Your task to perform on an android device: open app "DoorDash - Dasher" (install if not already installed) Image 0: 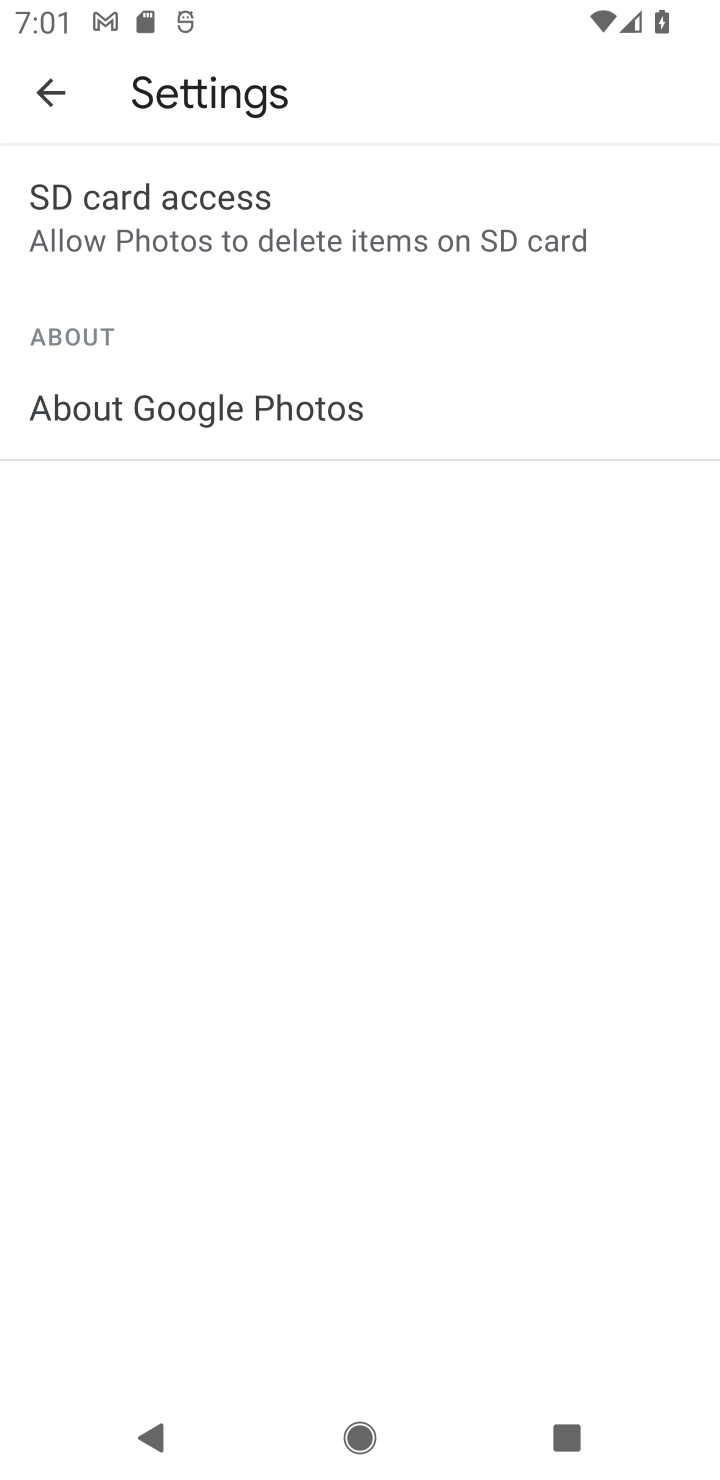
Step 0: press home button
Your task to perform on an android device: open app "DoorDash - Dasher" (install if not already installed) Image 1: 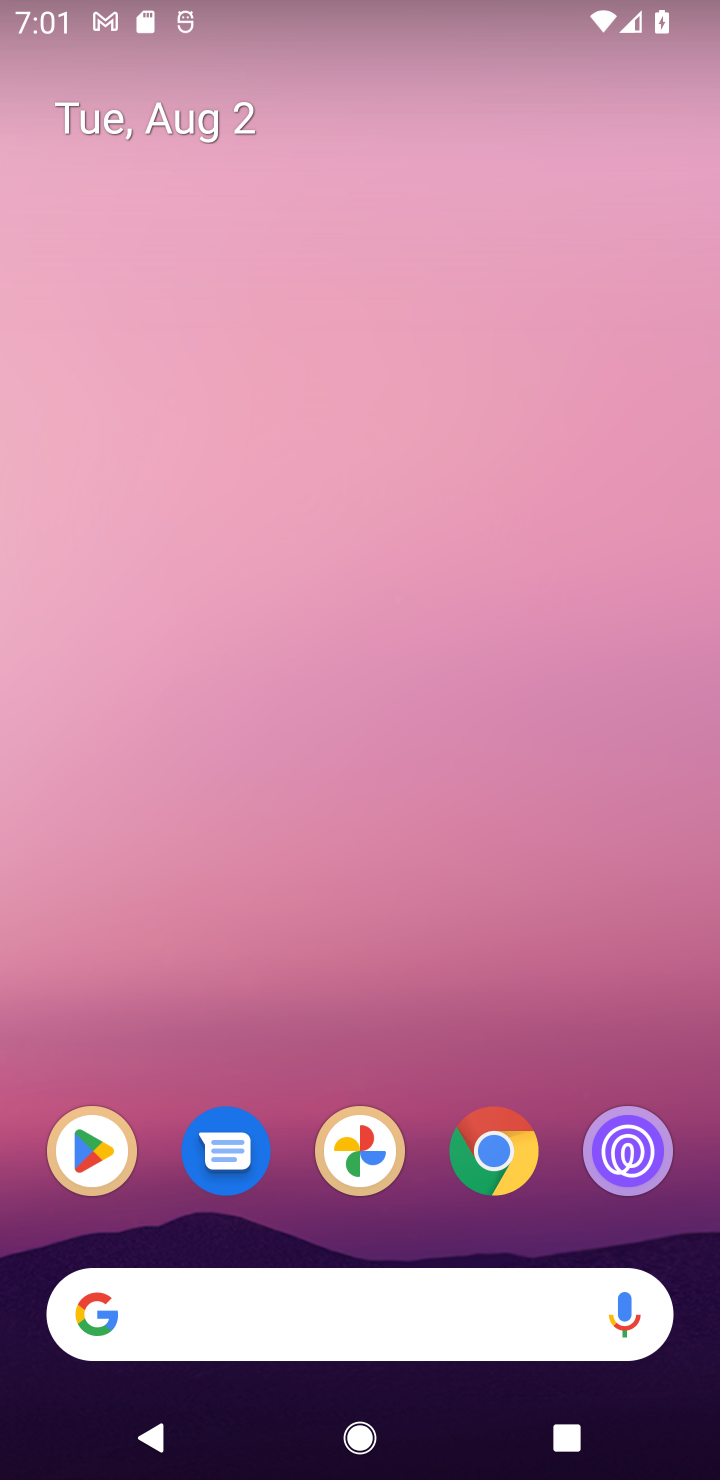
Step 1: click (113, 1140)
Your task to perform on an android device: open app "DoorDash - Dasher" (install if not already installed) Image 2: 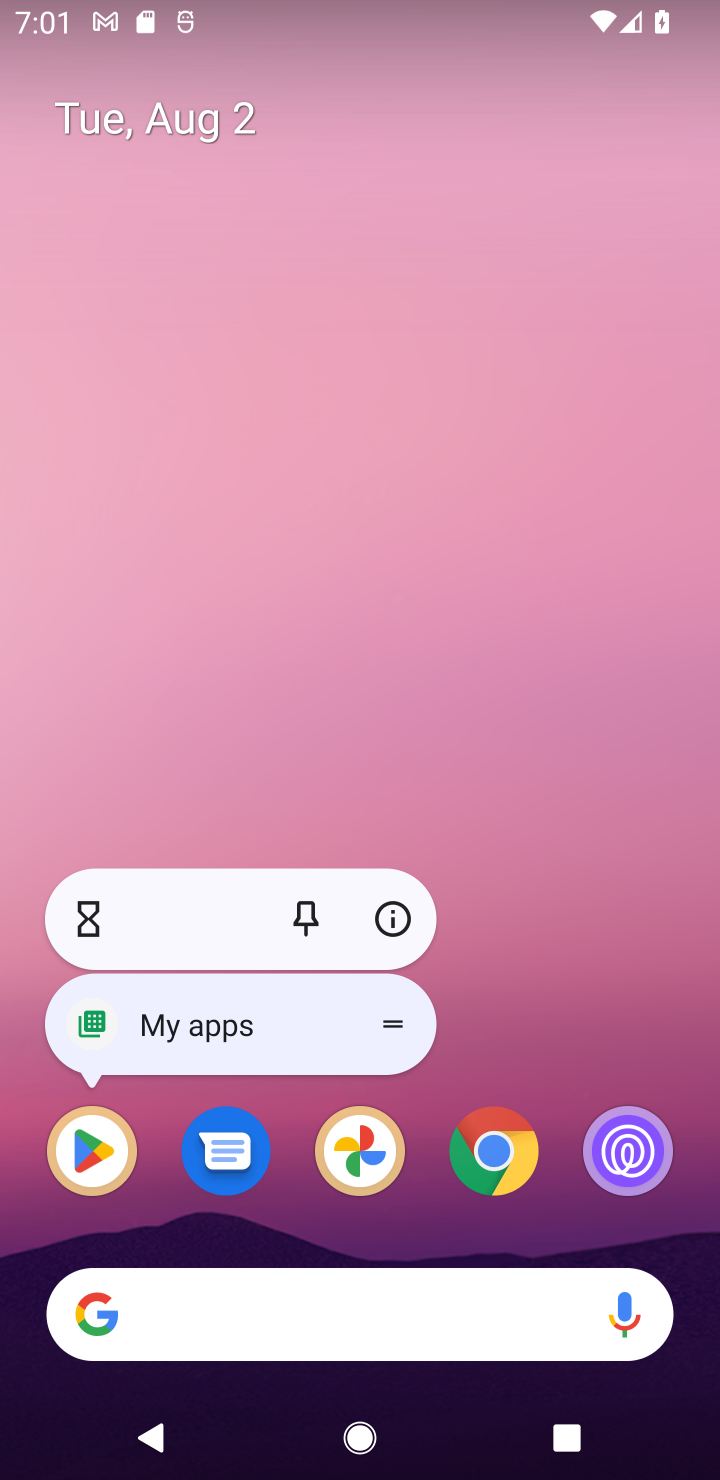
Step 2: click (113, 1140)
Your task to perform on an android device: open app "DoorDash - Dasher" (install if not already installed) Image 3: 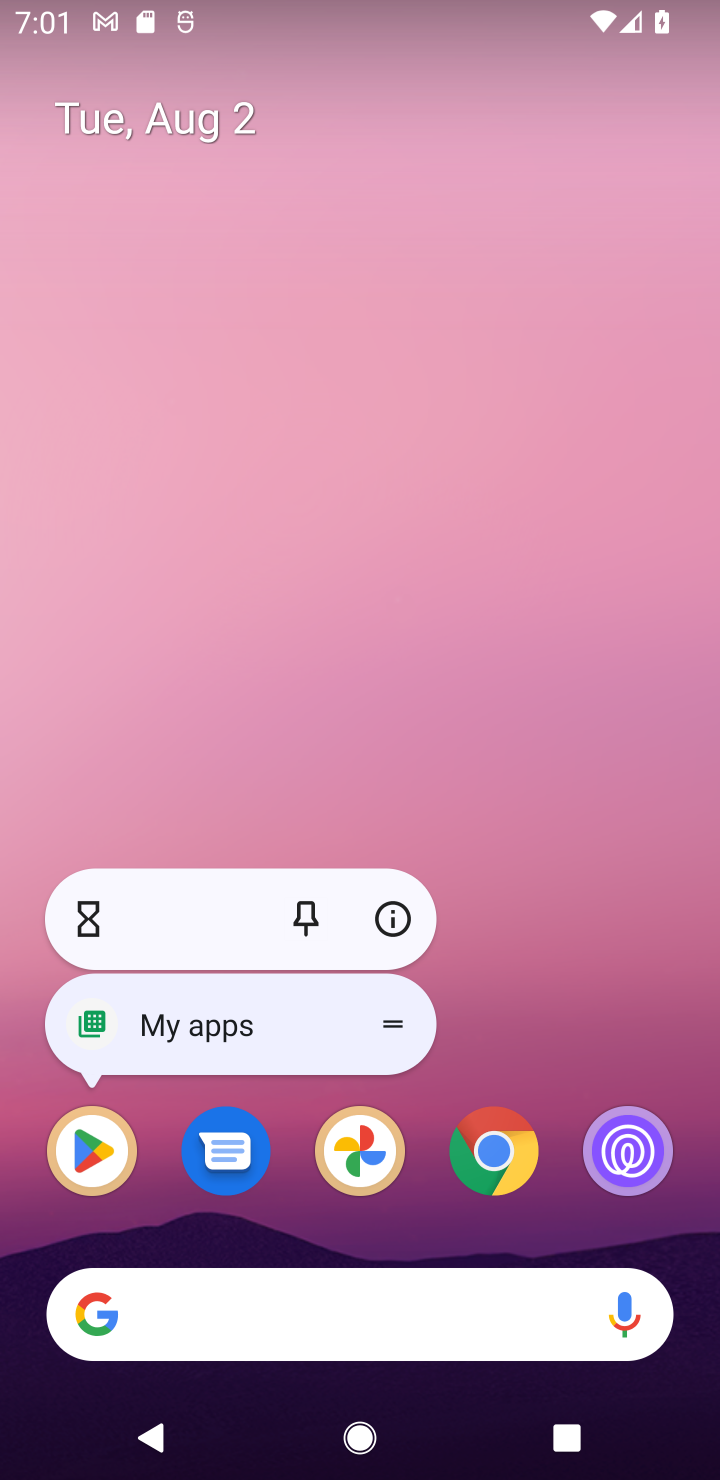
Step 3: click (111, 1138)
Your task to perform on an android device: open app "DoorDash - Dasher" (install if not already installed) Image 4: 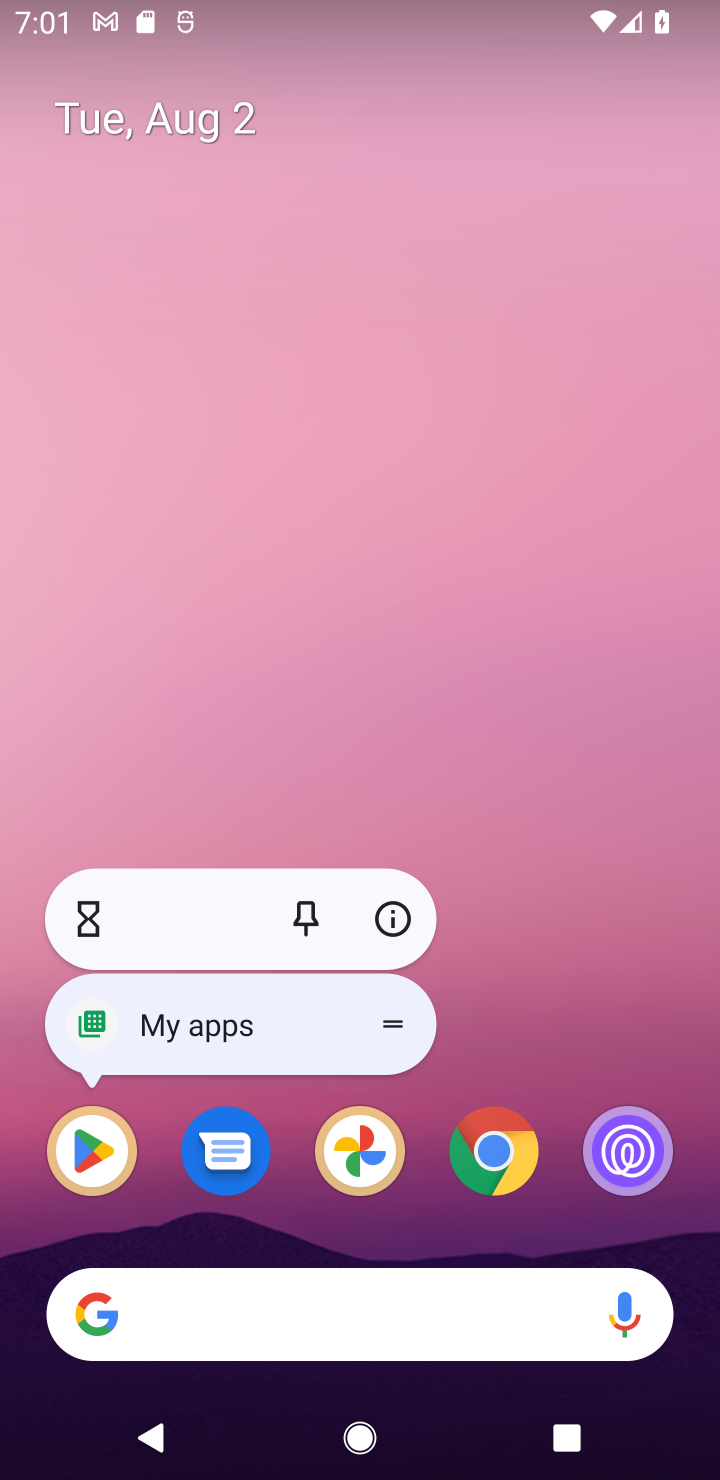
Step 4: click (95, 1156)
Your task to perform on an android device: open app "DoorDash - Dasher" (install if not already installed) Image 5: 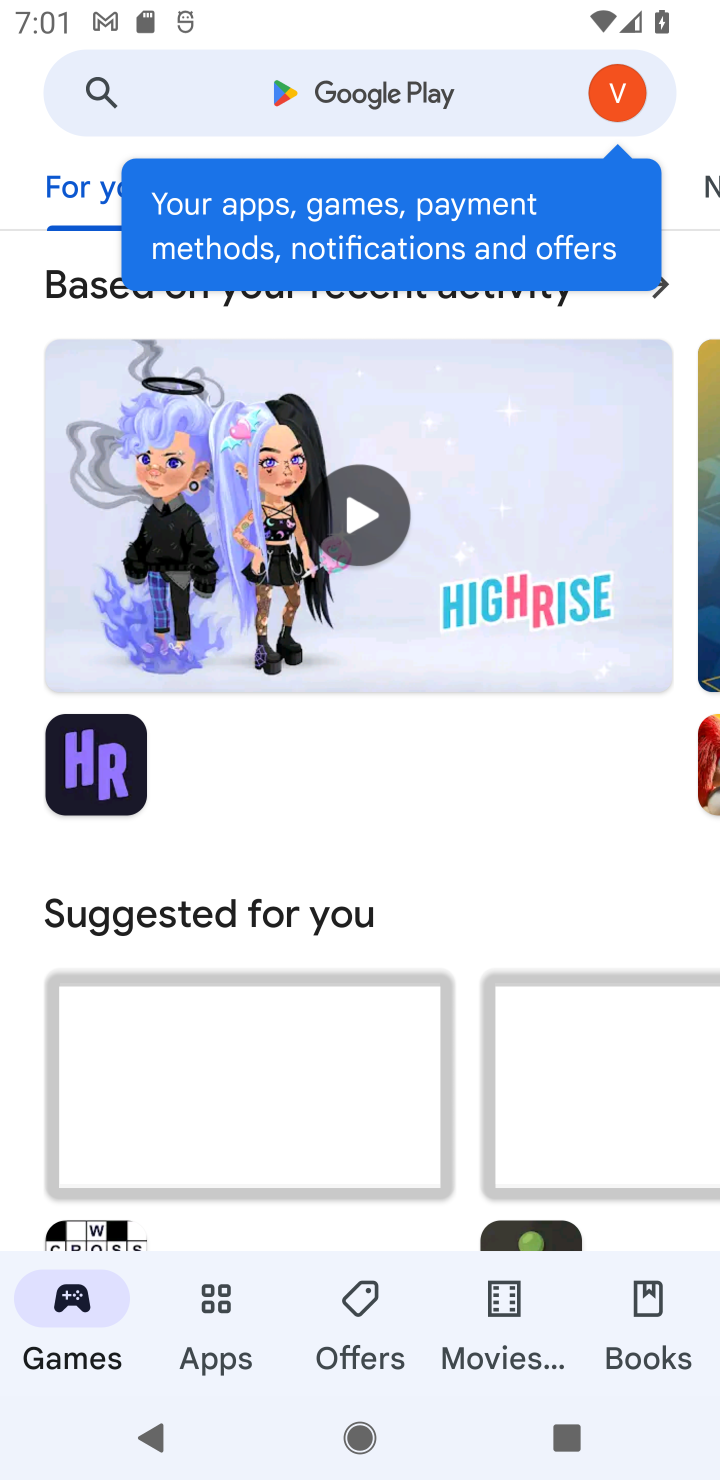
Step 5: click (366, 95)
Your task to perform on an android device: open app "DoorDash - Dasher" (install if not already installed) Image 6: 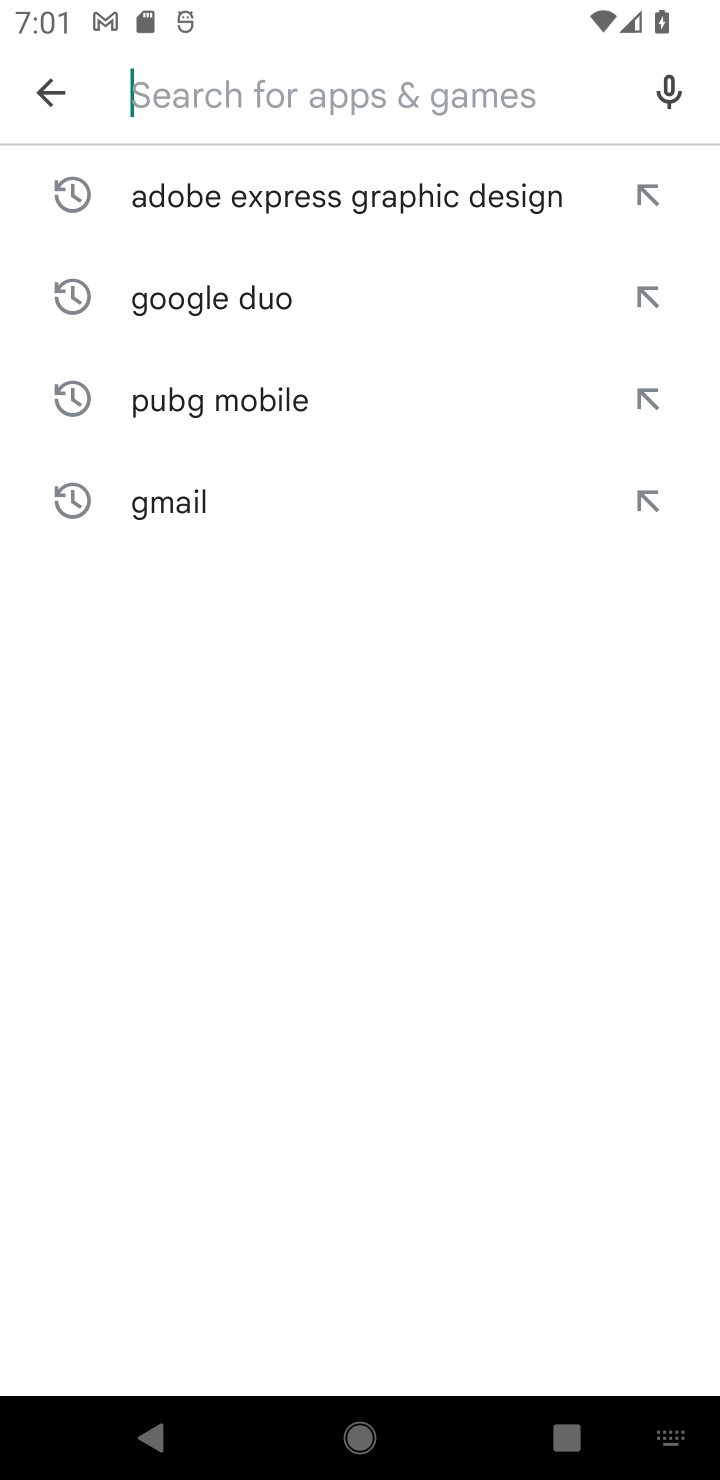
Step 6: click (235, 76)
Your task to perform on an android device: open app "DoorDash - Dasher" (install if not already installed) Image 7: 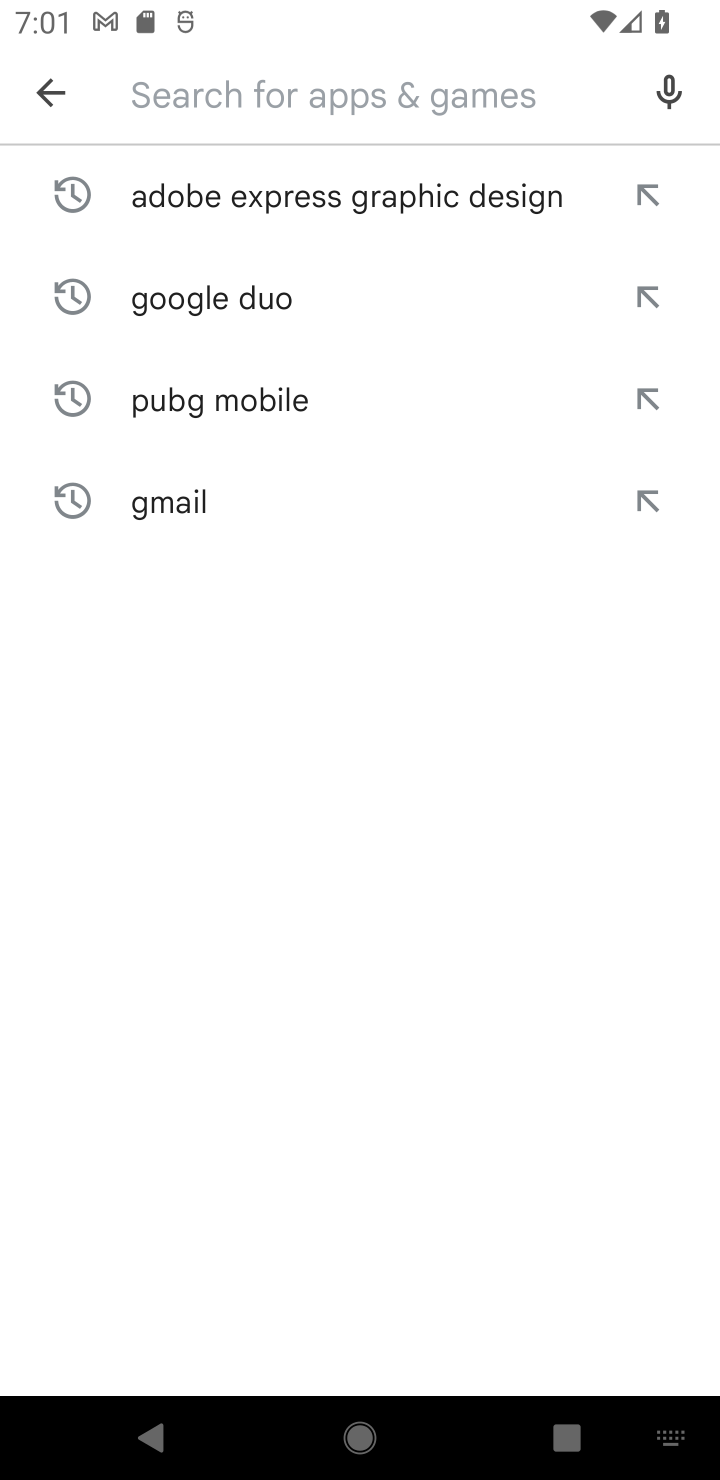
Step 7: type "DoorDash - Dashe"
Your task to perform on an android device: open app "DoorDash - Dasher" (install if not already installed) Image 8: 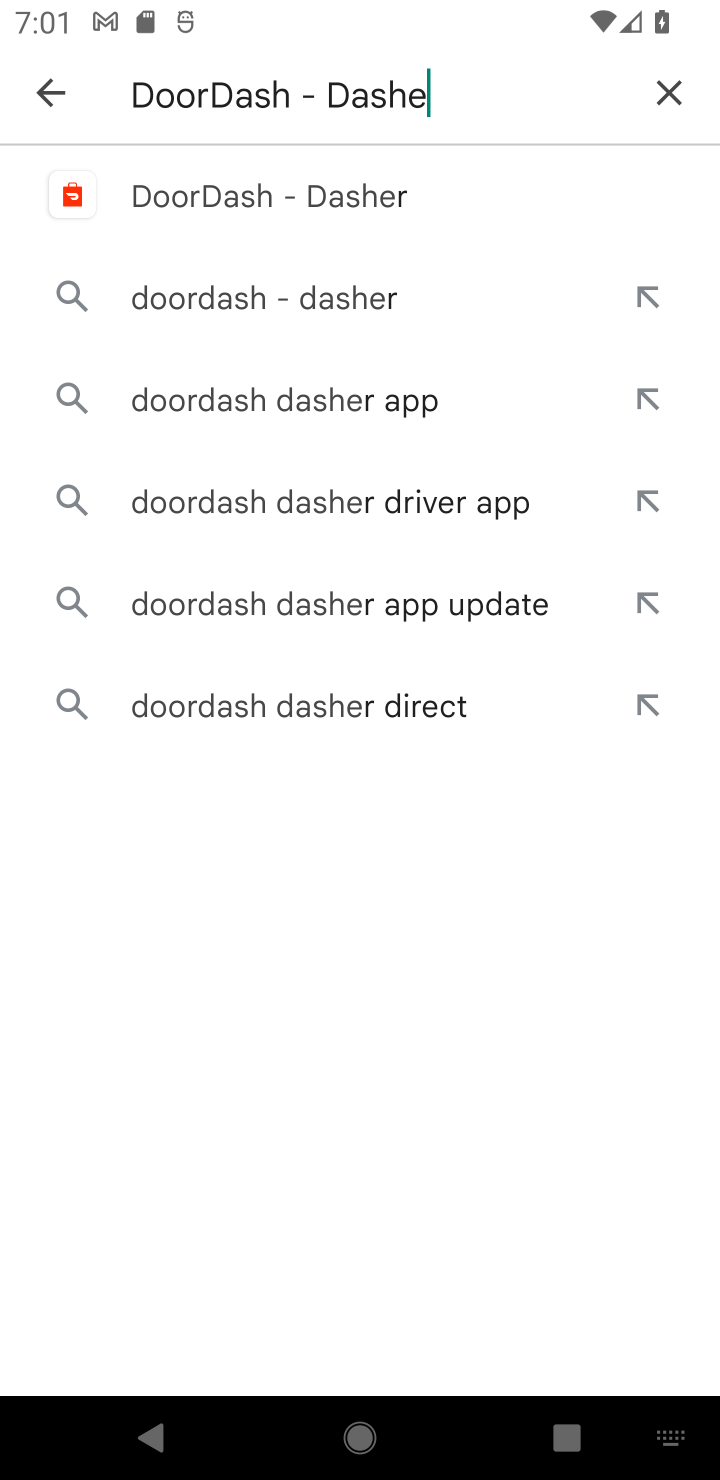
Step 8: click (299, 201)
Your task to perform on an android device: open app "DoorDash - Dasher" (install if not already installed) Image 9: 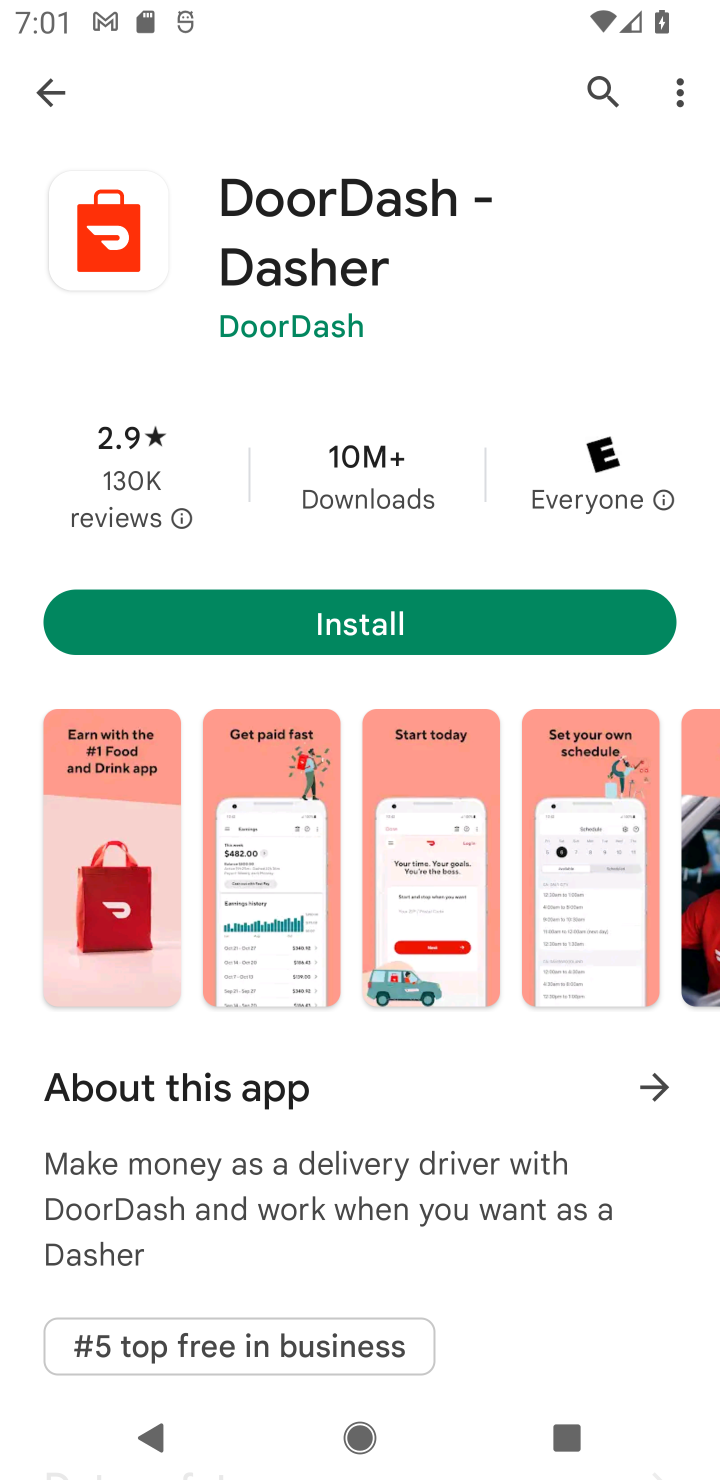
Step 9: click (189, 625)
Your task to perform on an android device: open app "DoorDash - Dasher" (install if not already installed) Image 10: 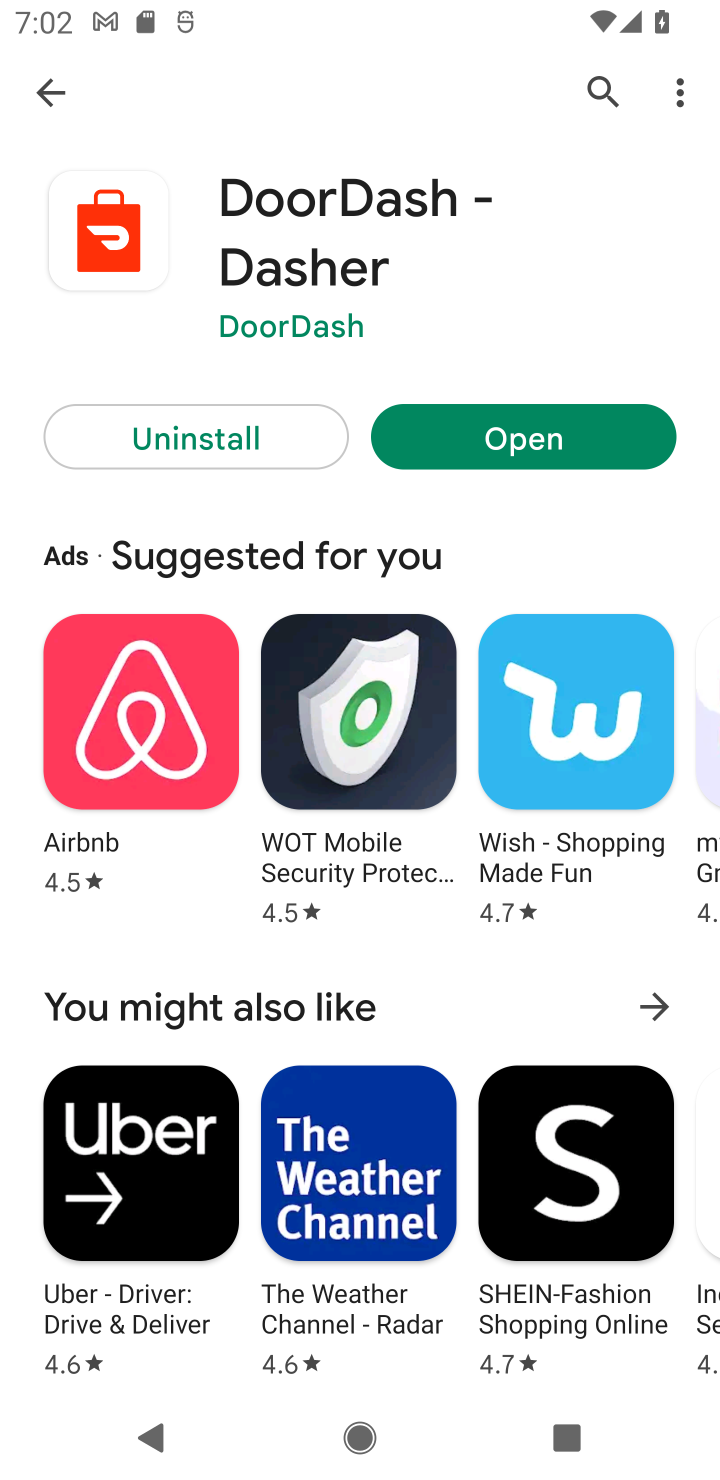
Step 10: click (532, 445)
Your task to perform on an android device: open app "DoorDash - Dasher" (install if not already installed) Image 11: 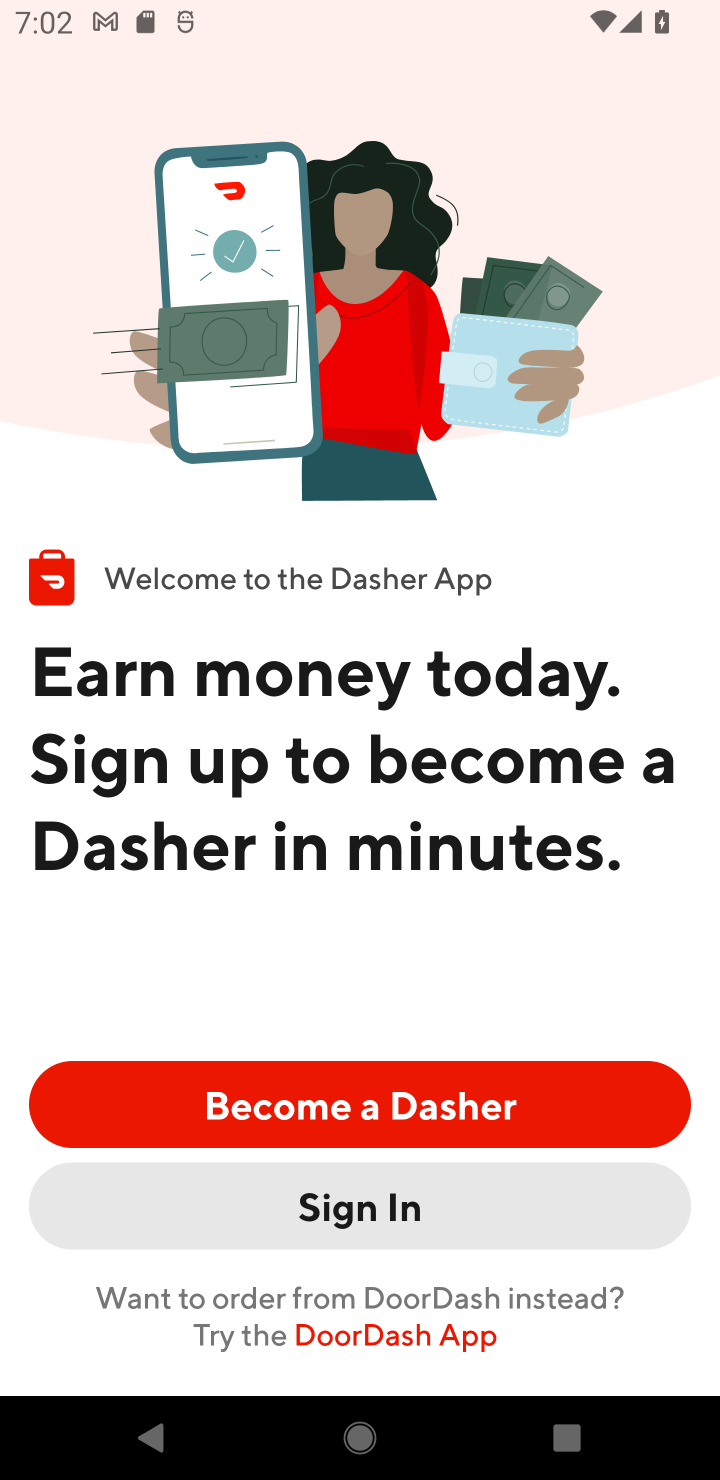
Step 11: task complete